Your task to perform on an android device: set an alarm Image 0: 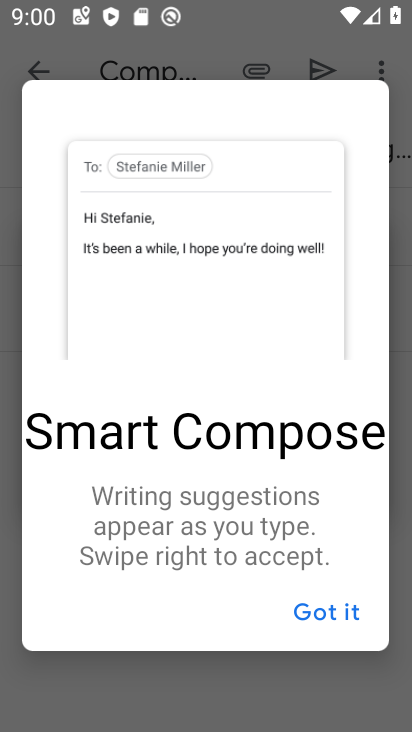
Step 0: press home button
Your task to perform on an android device: set an alarm Image 1: 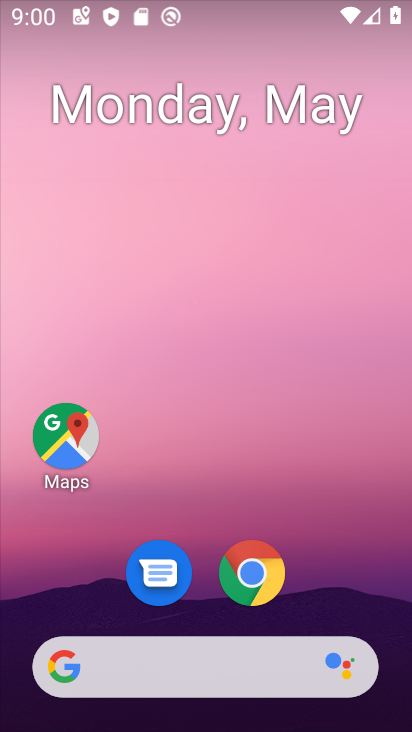
Step 1: drag from (339, 579) to (231, 23)
Your task to perform on an android device: set an alarm Image 2: 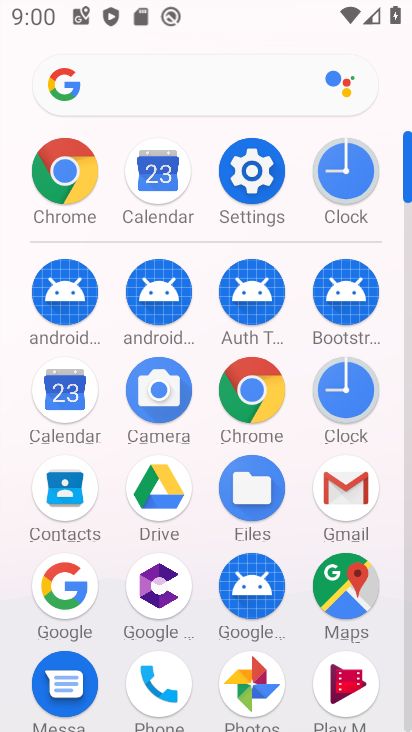
Step 2: click (329, 177)
Your task to perform on an android device: set an alarm Image 3: 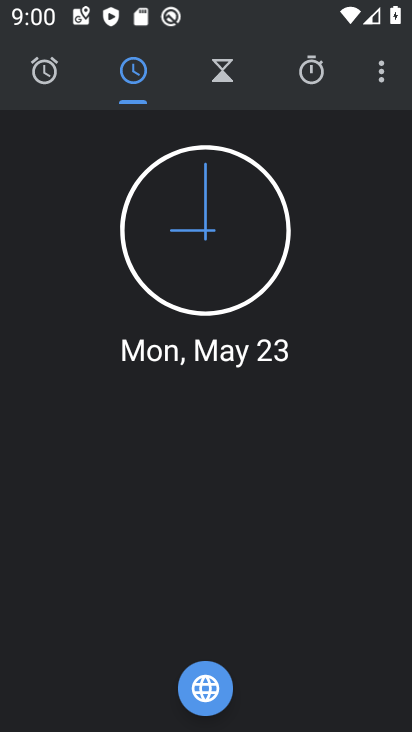
Step 3: click (58, 80)
Your task to perform on an android device: set an alarm Image 4: 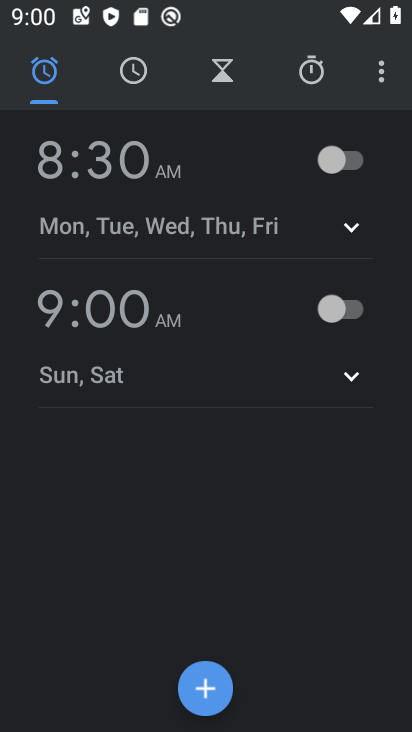
Step 4: task complete